Your task to perform on an android device: How much does a3 bedroom apartment rent for in Portland? Image 0: 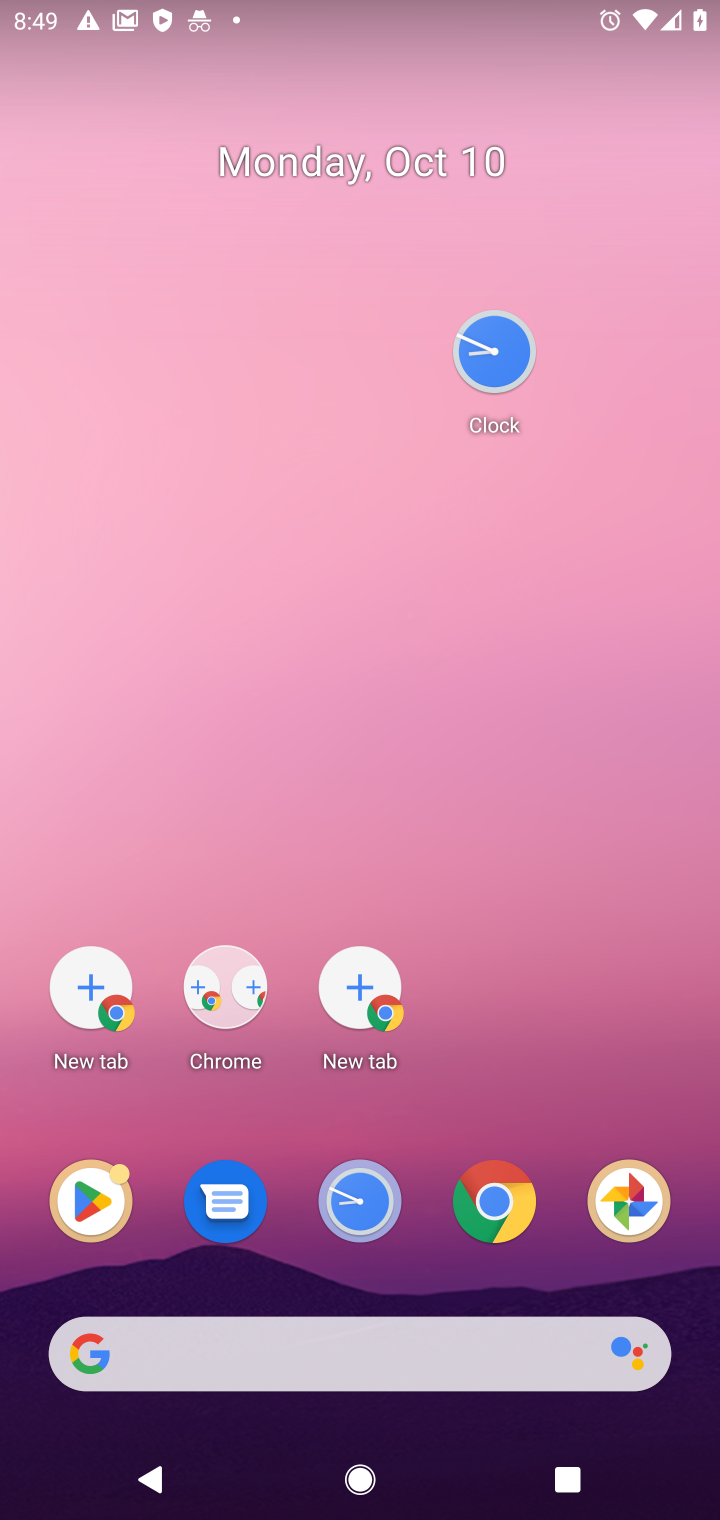
Step 0: click (494, 1210)
Your task to perform on an android device: How much does a3 bedroom apartment rent for in Portland? Image 1: 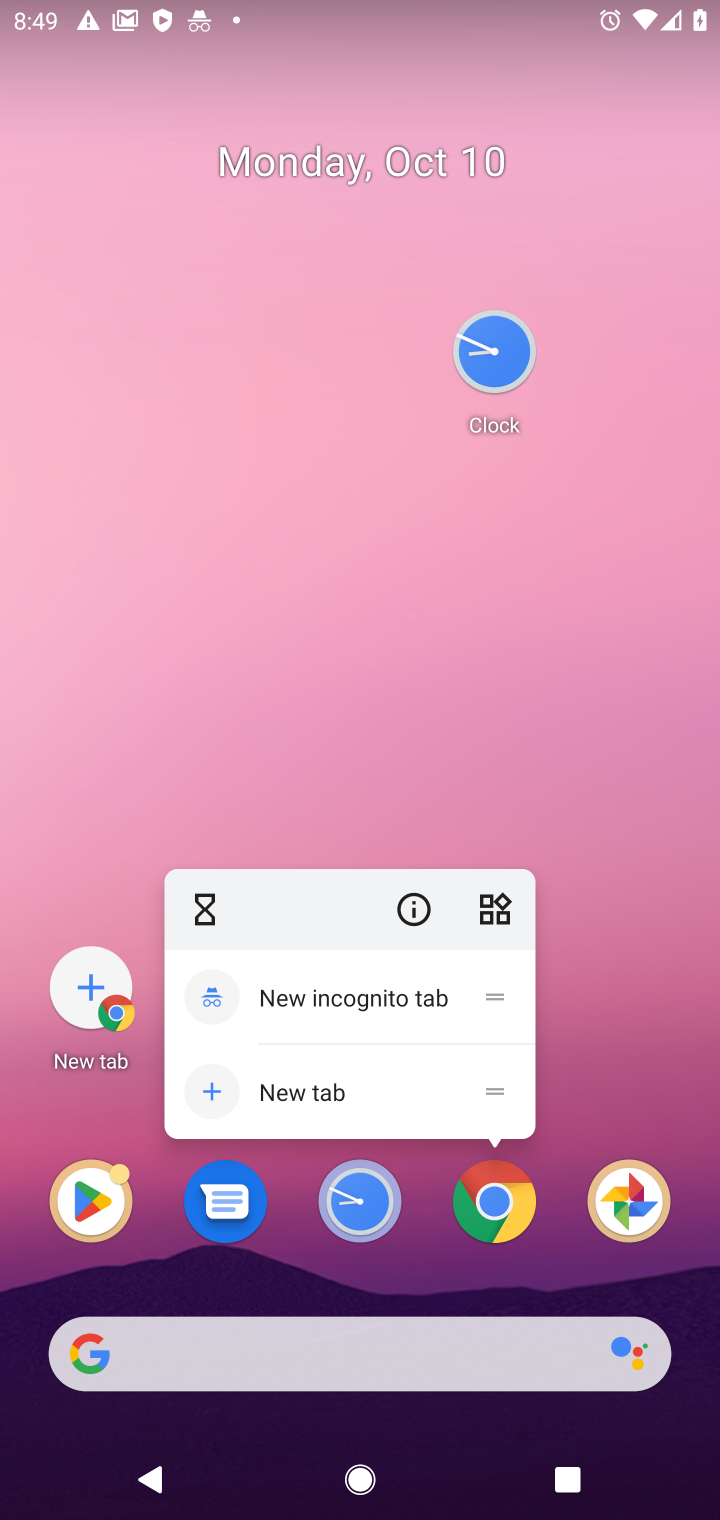
Step 1: click (483, 1227)
Your task to perform on an android device: How much does a3 bedroom apartment rent for in Portland? Image 2: 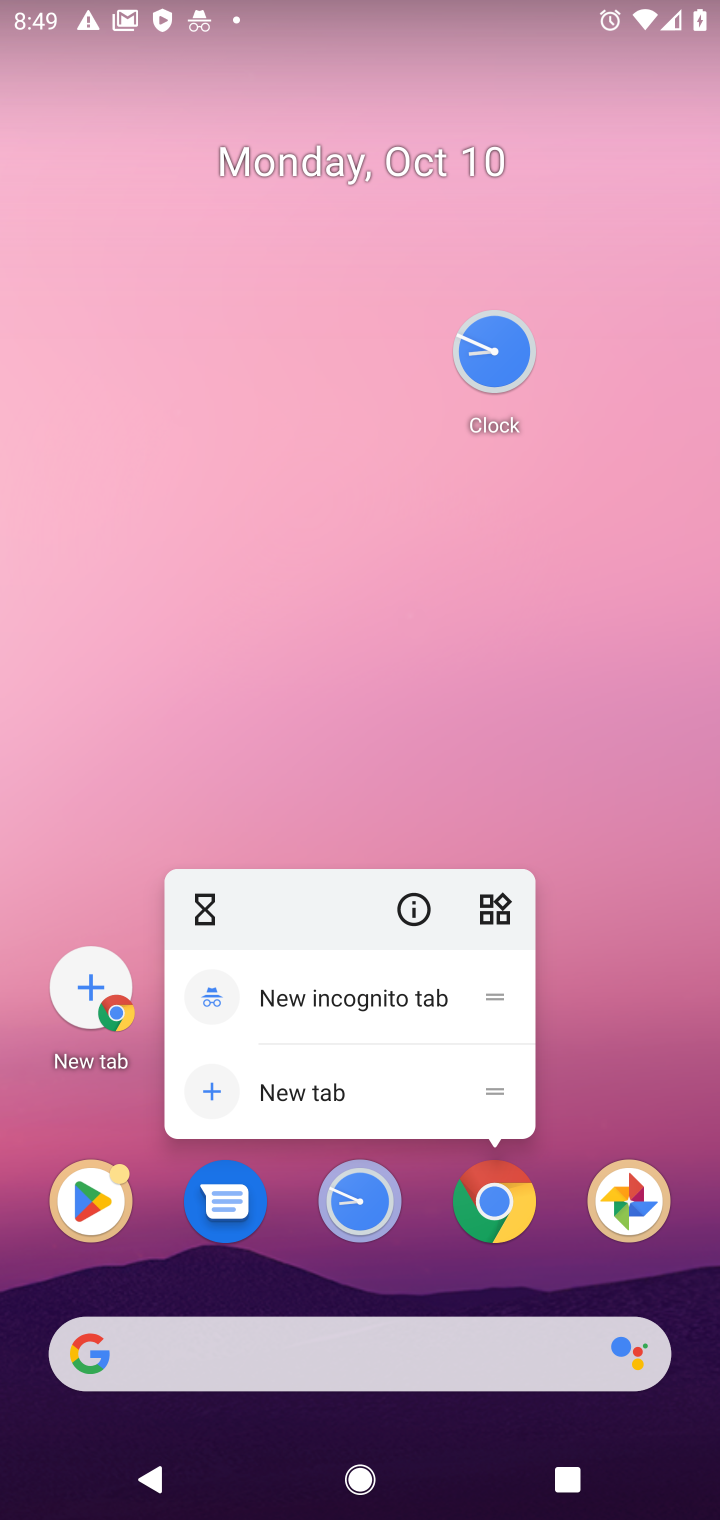
Step 2: click (585, 667)
Your task to perform on an android device: How much does a3 bedroom apartment rent for in Portland? Image 3: 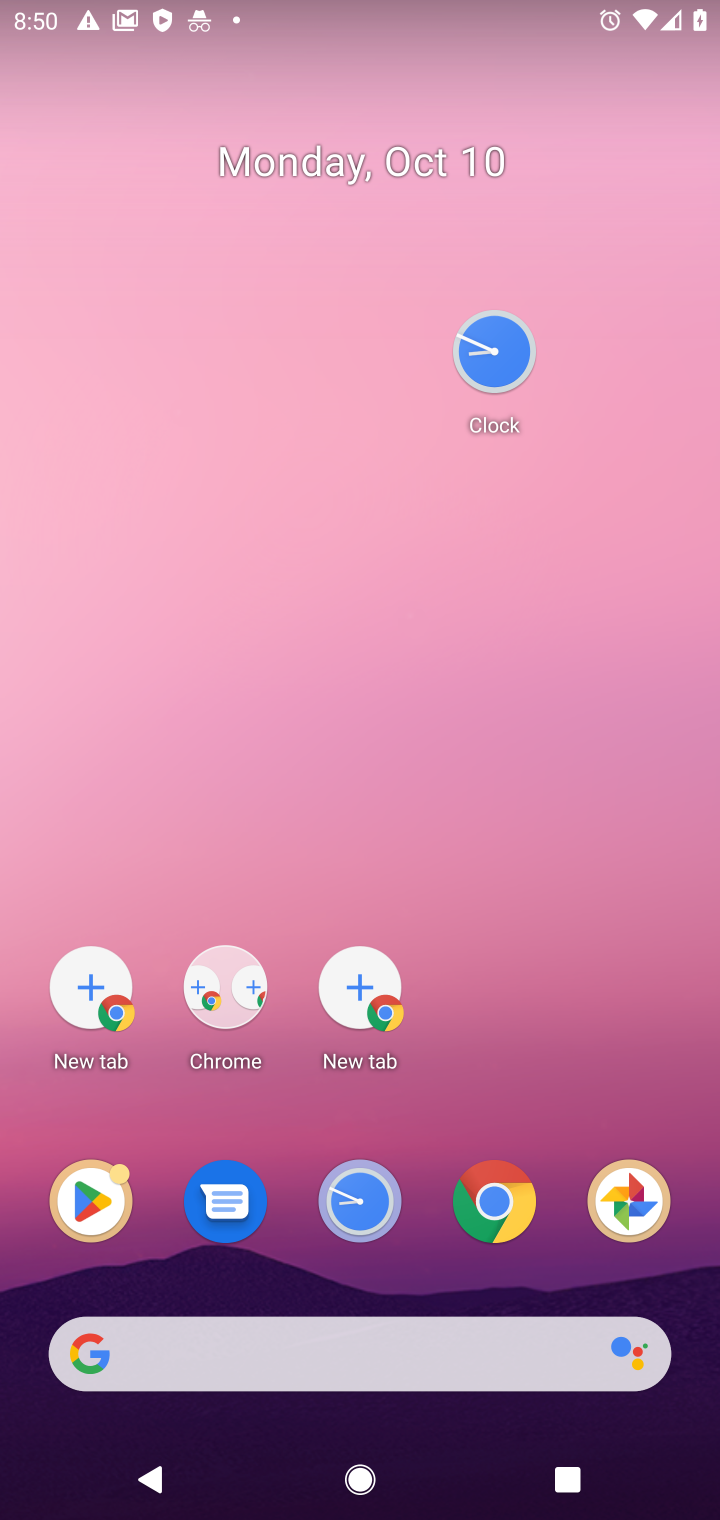
Step 3: click (498, 1202)
Your task to perform on an android device: How much does a3 bedroom apartment rent for in Portland? Image 4: 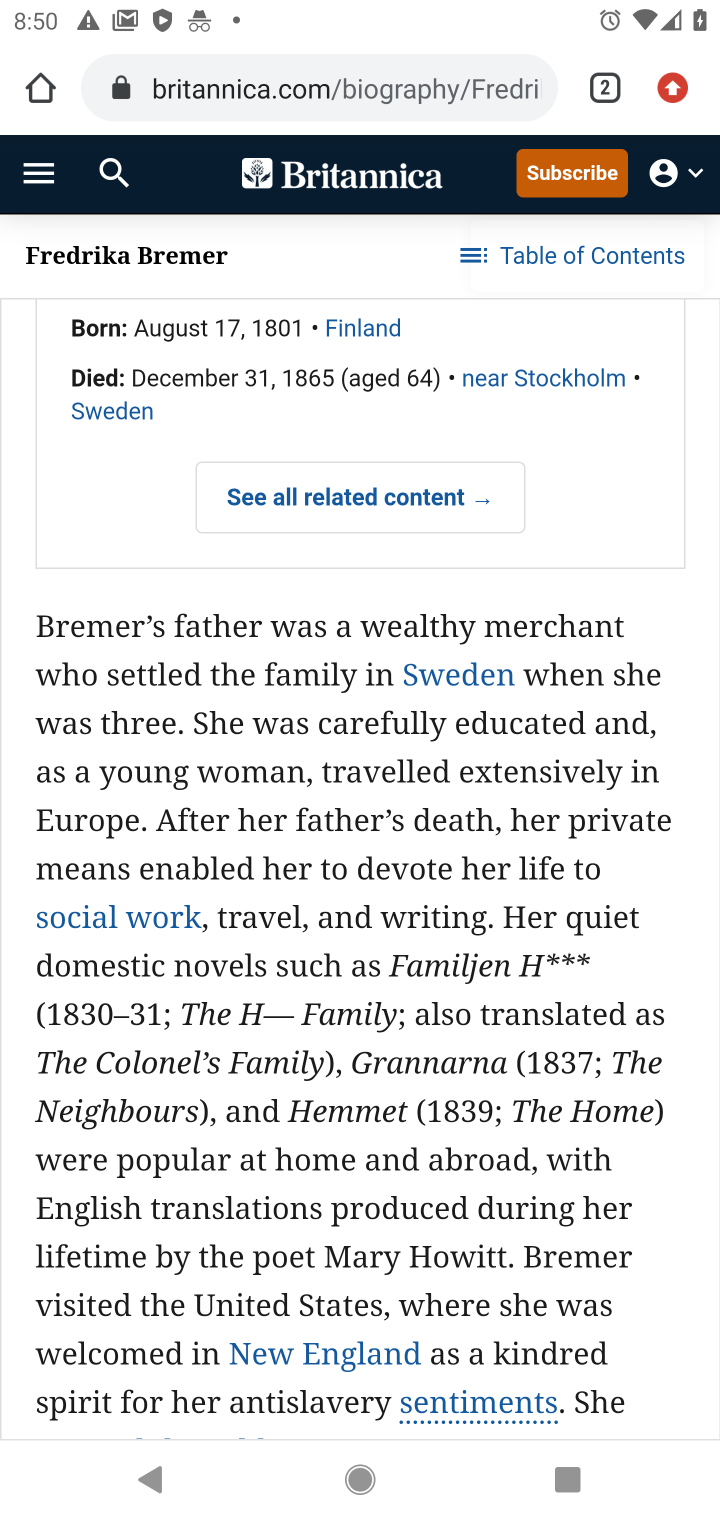
Step 4: click (402, 100)
Your task to perform on an android device: How much does a3 bedroom apartment rent for in Portland? Image 5: 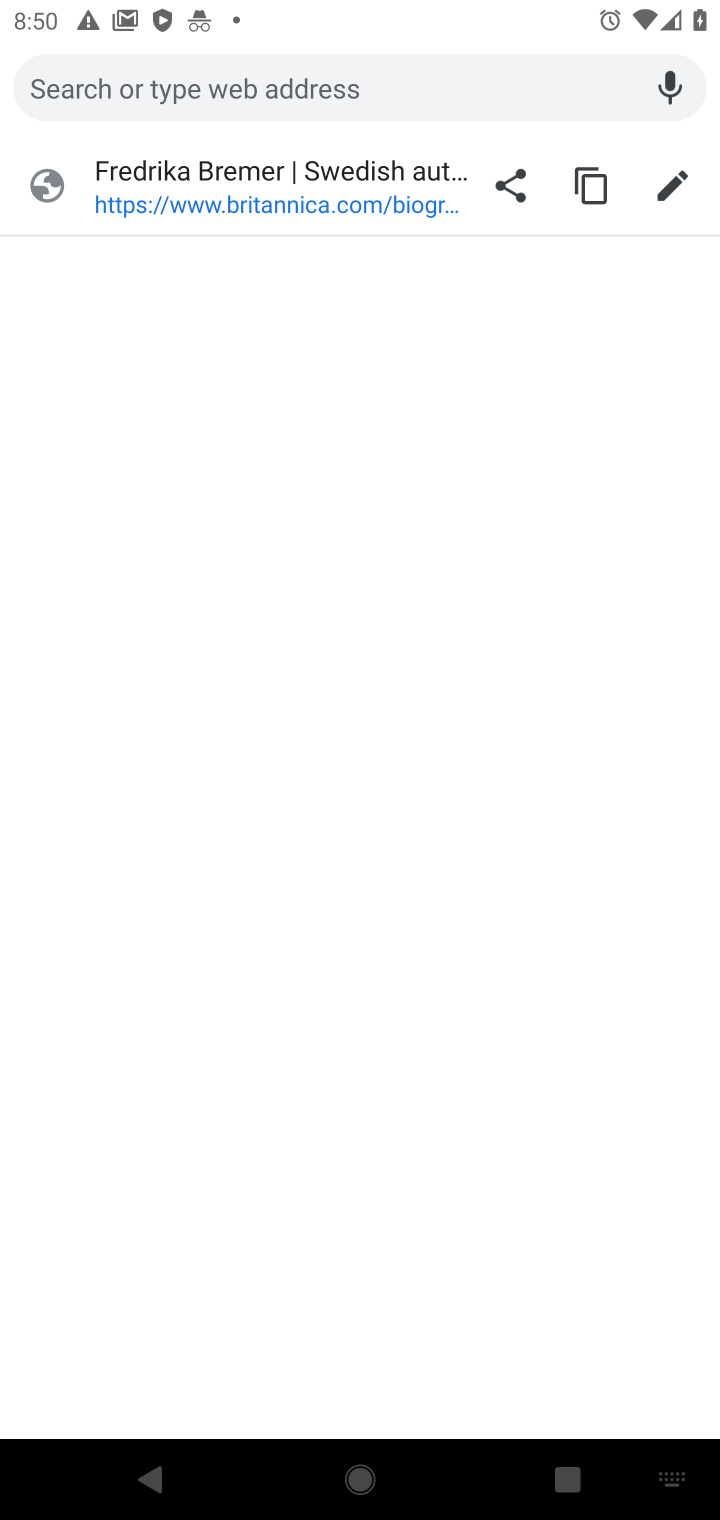
Step 5: type "How much does a3 bedroom apartment rent for in Portland?"
Your task to perform on an android device: How much does a3 bedroom apartment rent for in Portland? Image 6: 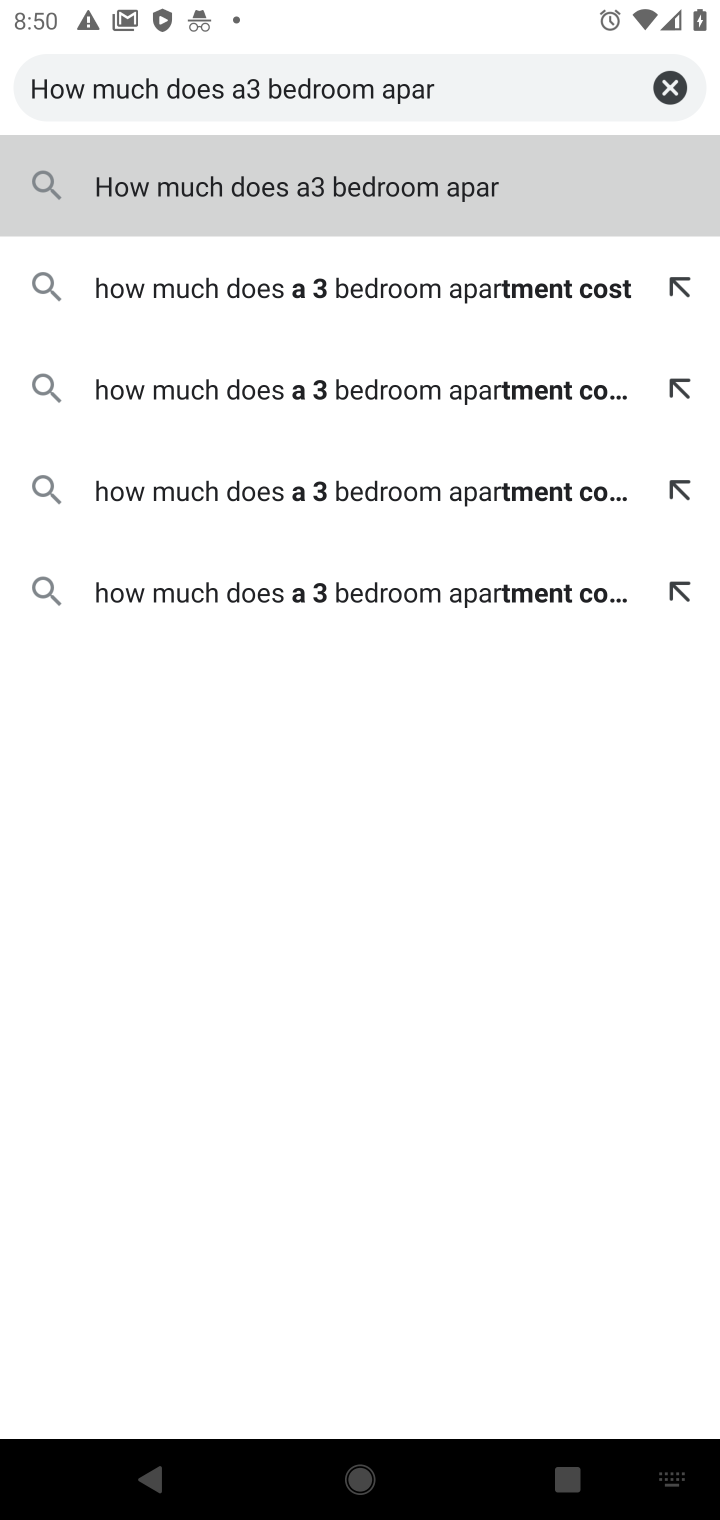
Step 6: type ""
Your task to perform on an android device: How much does a3 bedroom apartment rent for in Portland? Image 7: 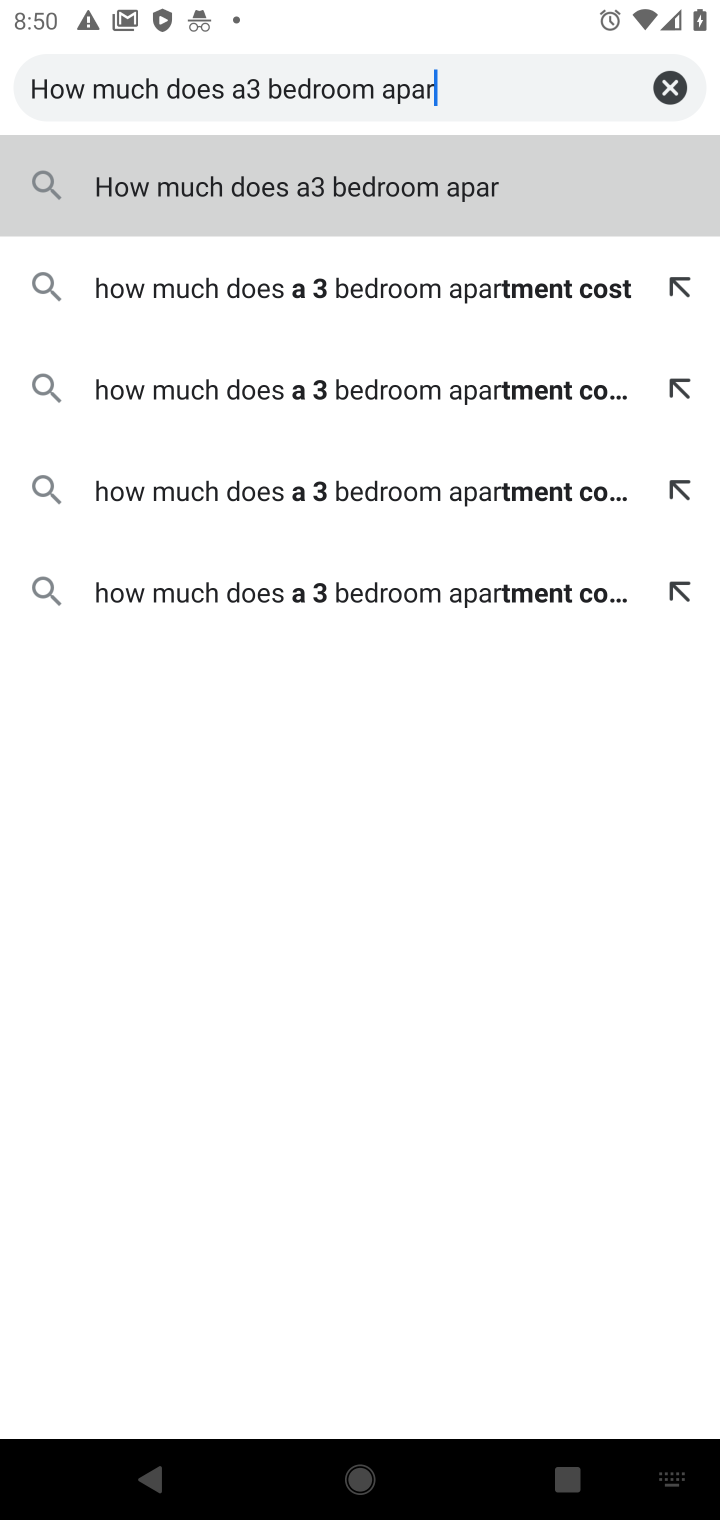
Step 7: click (675, 82)
Your task to perform on an android device: How much does a3 bedroom apartment rent for in Portland? Image 8: 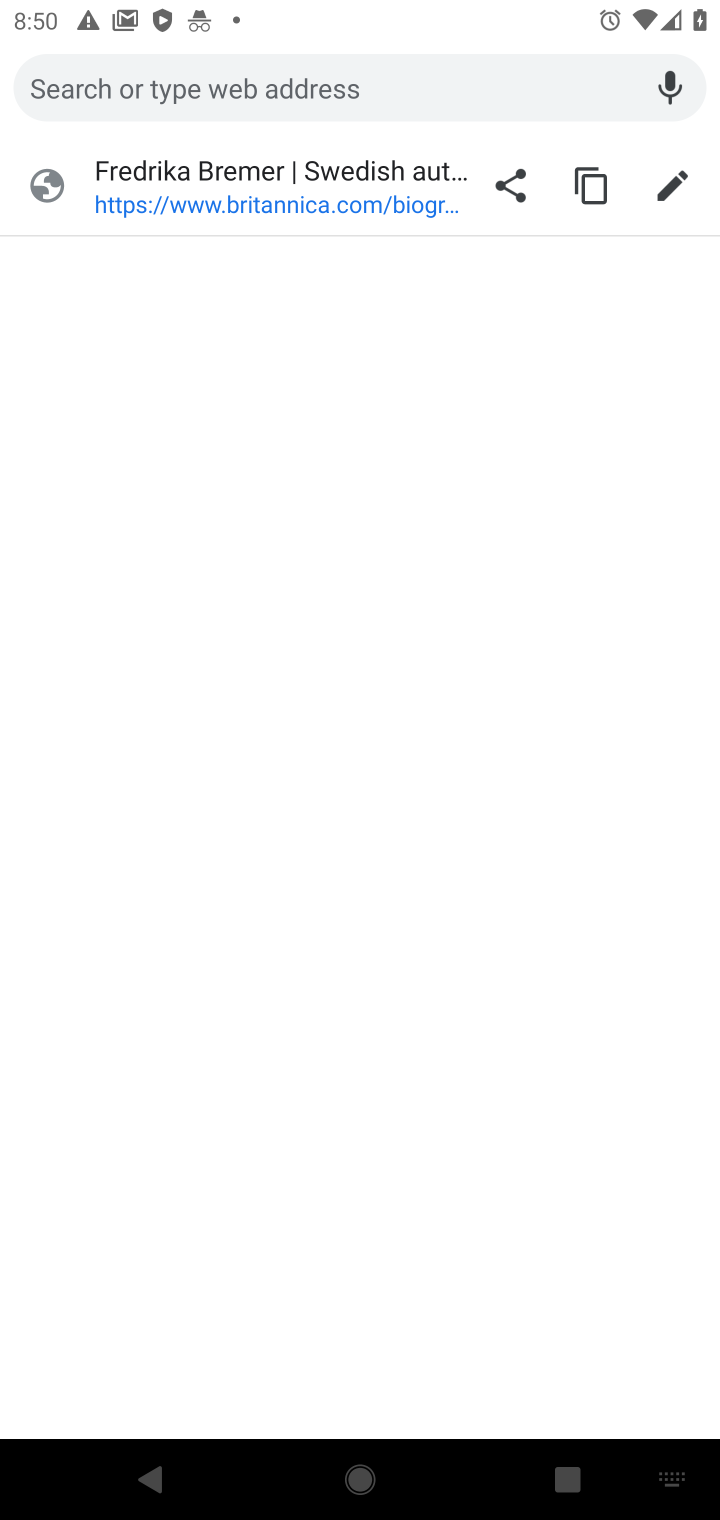
Step 8: type "How much does a3 bedroom apartment rent for in Portland?"
Your task to perform on an android device: How much does a3 bedroom apartment rent for in Portland? Image 9: 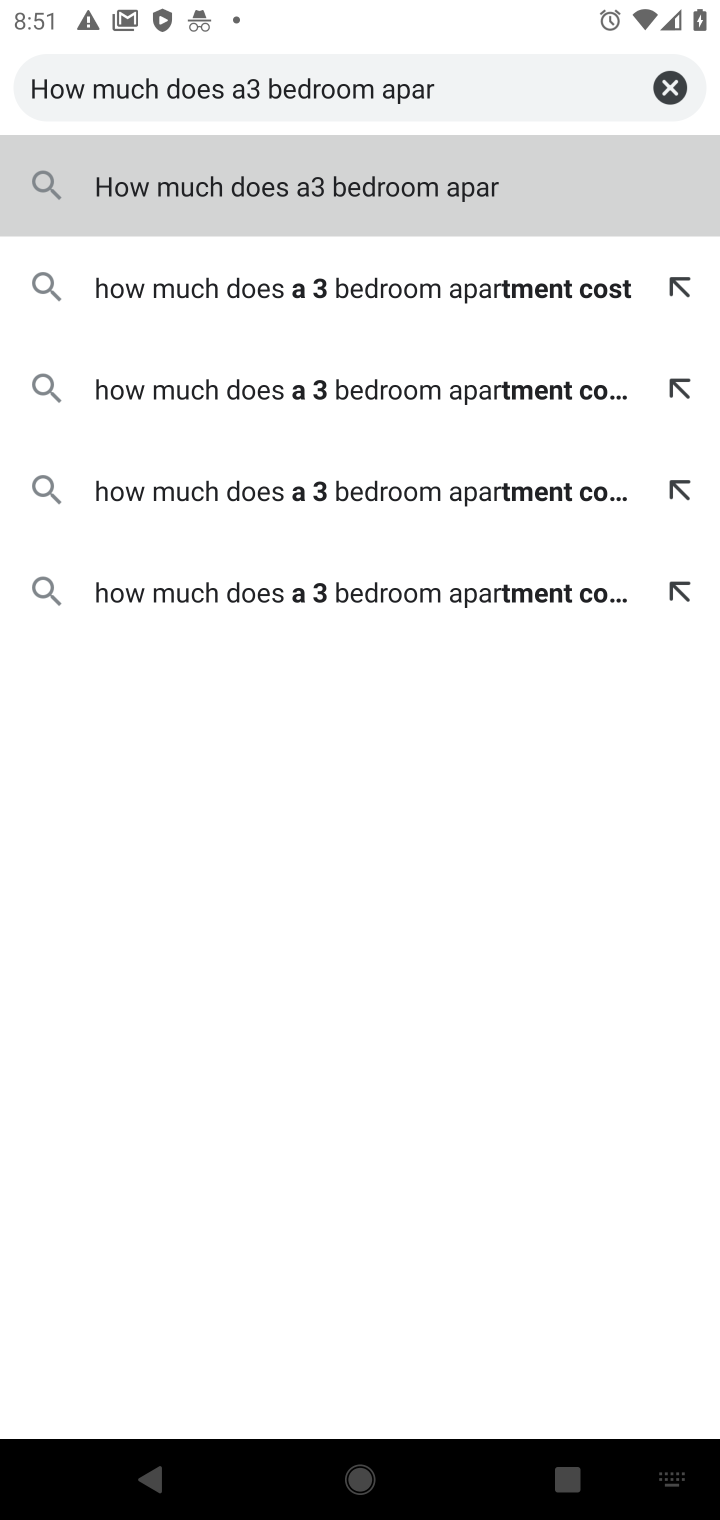
Step 9: type ""
Your task to perform on an android device: How much does a3 bedroom apartment rent for in Portland? Image 10: 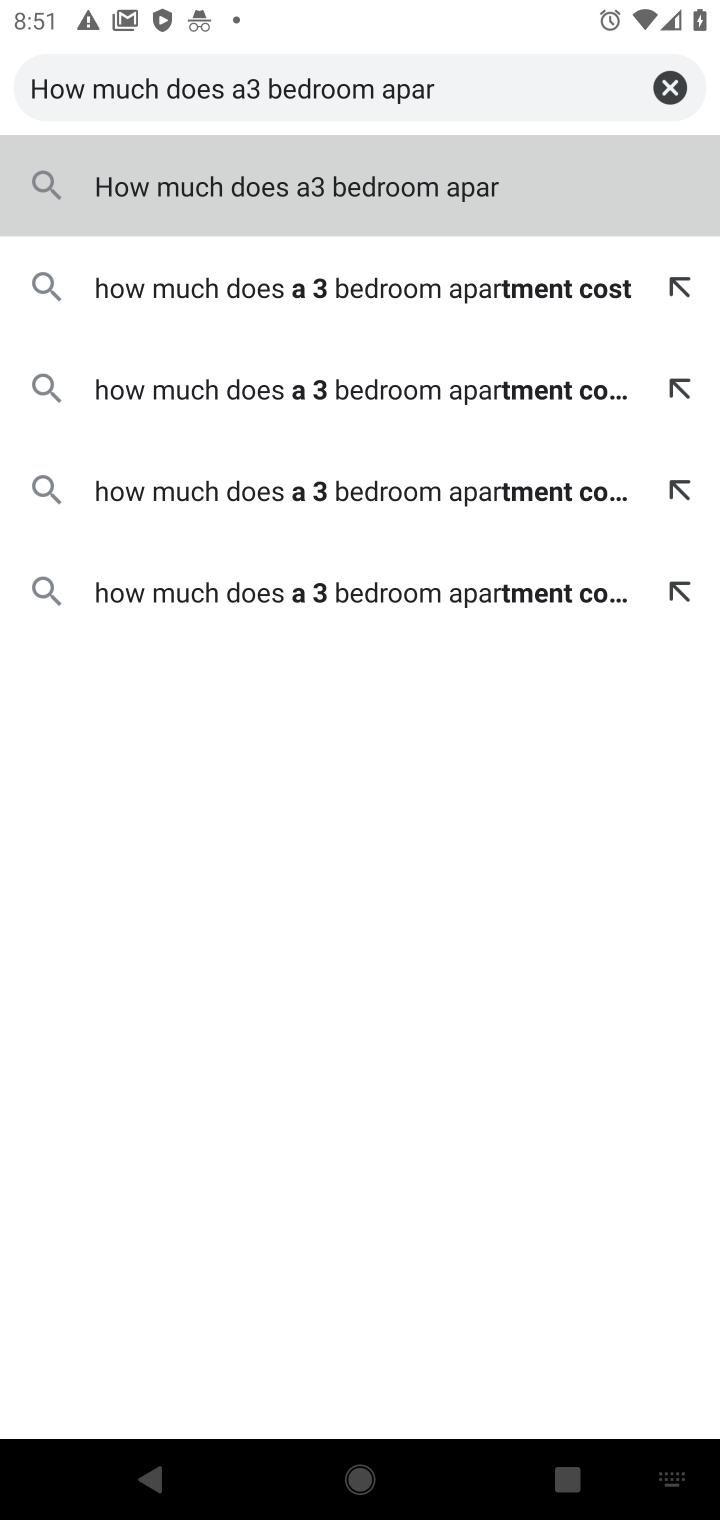
Step 10: click (454, 310)
Your task to perform on an android device: How much does a3 bedroom apartment rent for in Portland? Image 11: 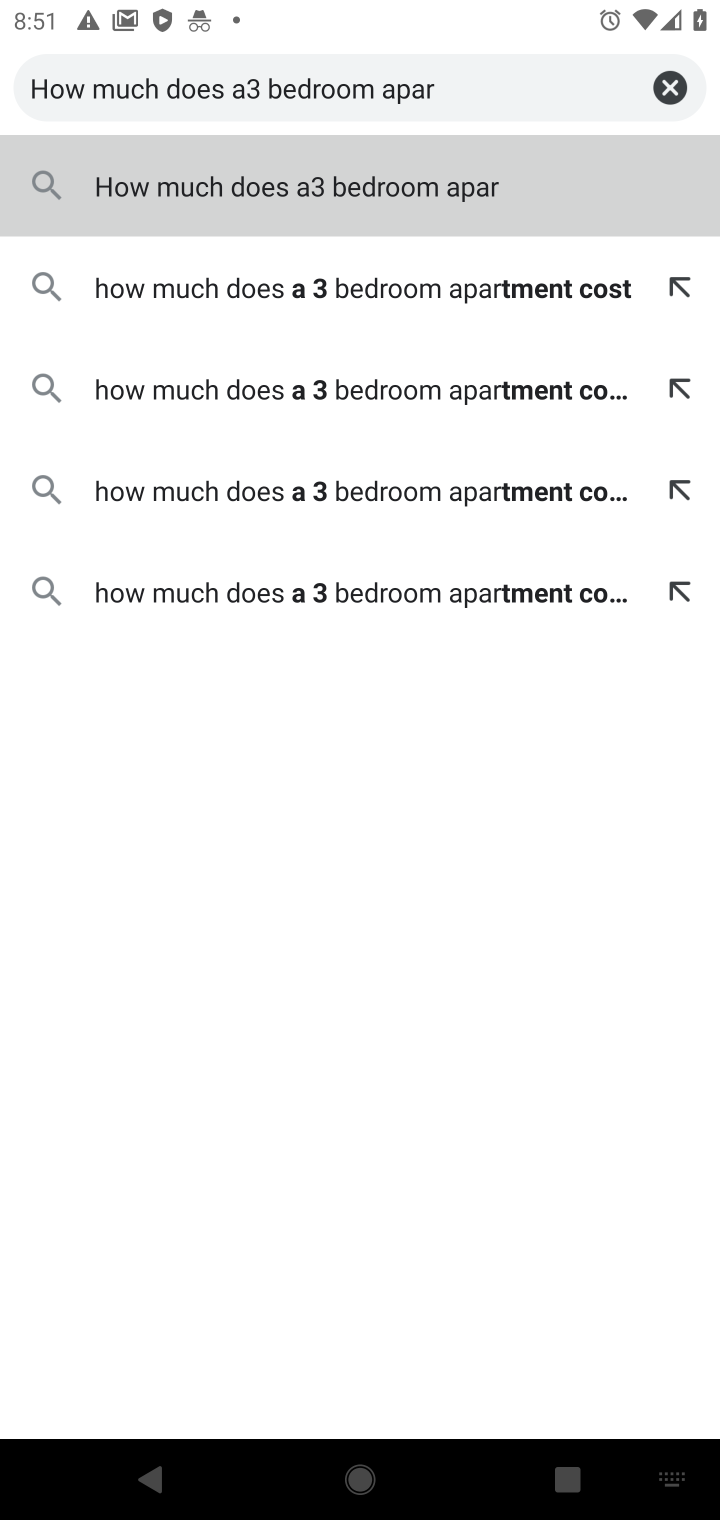
Step 11: click (458, 279)
Your task to perform on an android device: How much does a3 bedroom apartment rent for in Portland? Image 12: 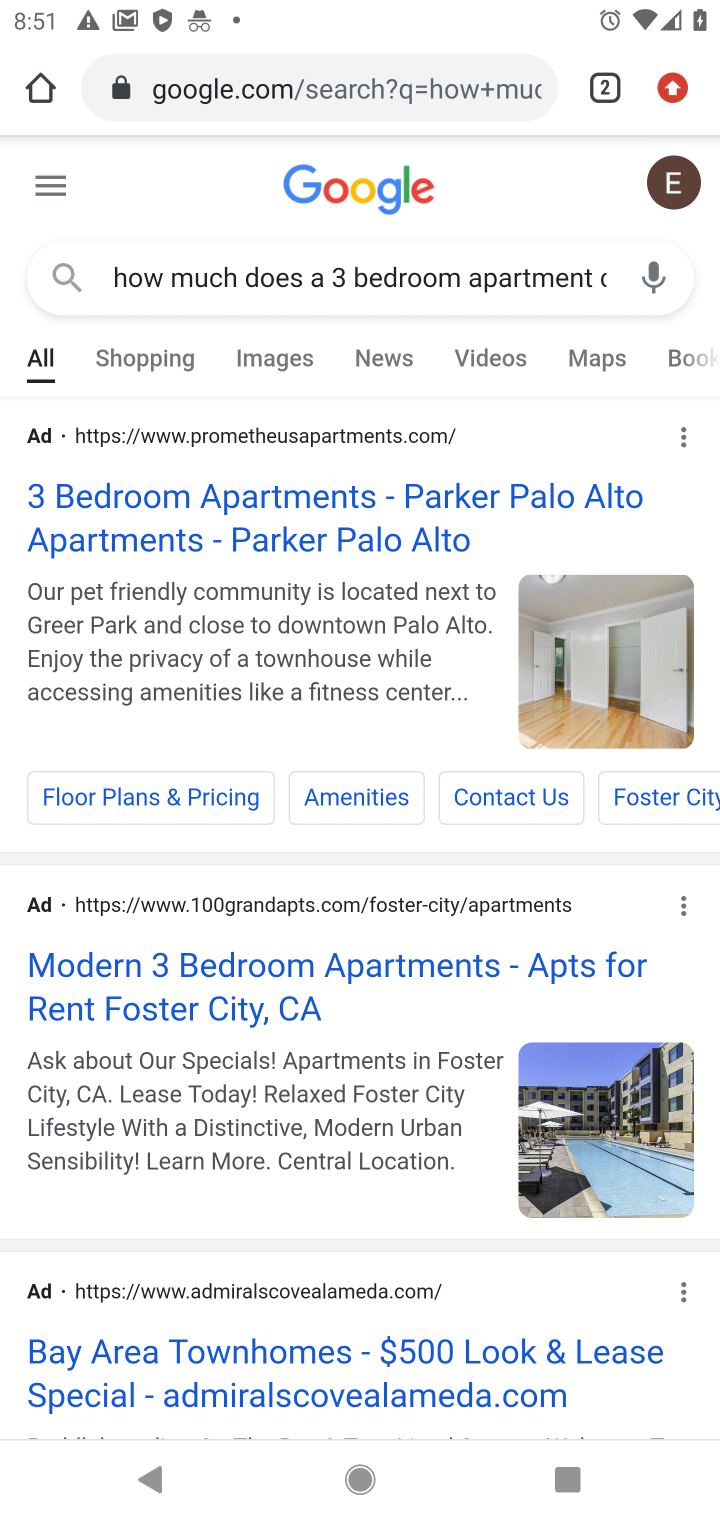
Step 12: drag from (323, 1170) to (230, 344)
Your task to perform on an android device: How much does a3 bedroom apartment rent for in Portland? Image 13: 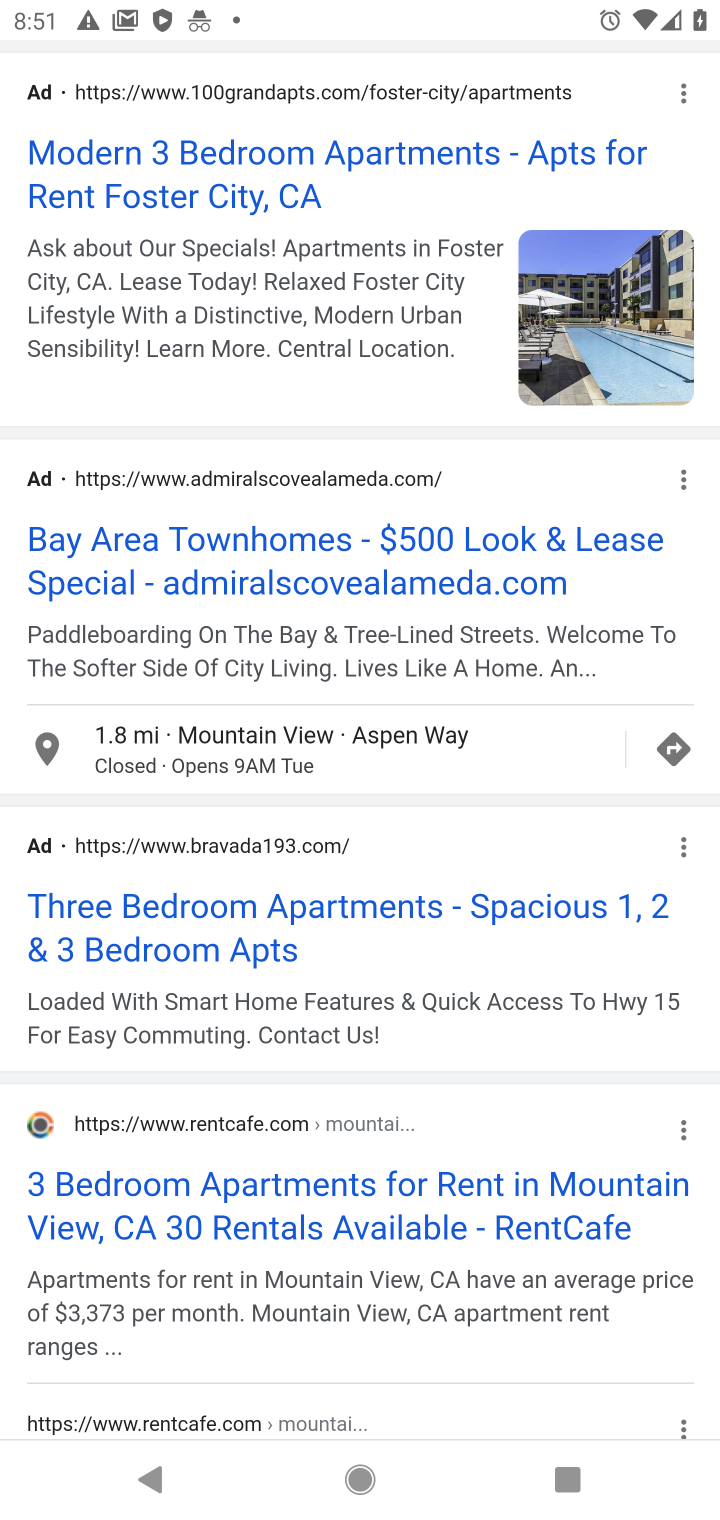
Step 13: drag from (397, 1018) to (304, 244)
Your task to perform on an android device: How much does a3 bedroom apartment rent for in Portland? Image 14: 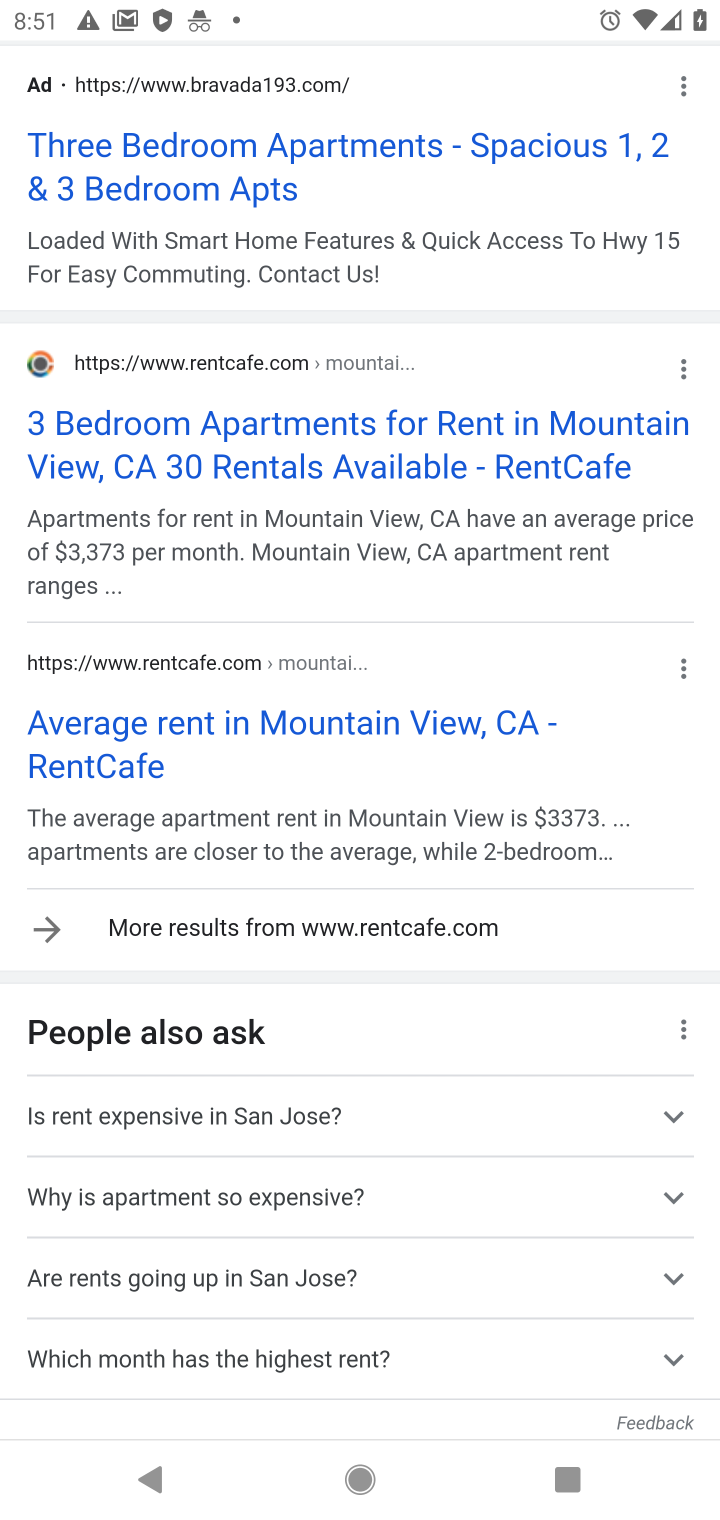
Step 14: drag from (368, 725) to (366, 1200)
Your task to perform on an android device: How much does a3 bedroom apartment rent for in Portland? Image 15: 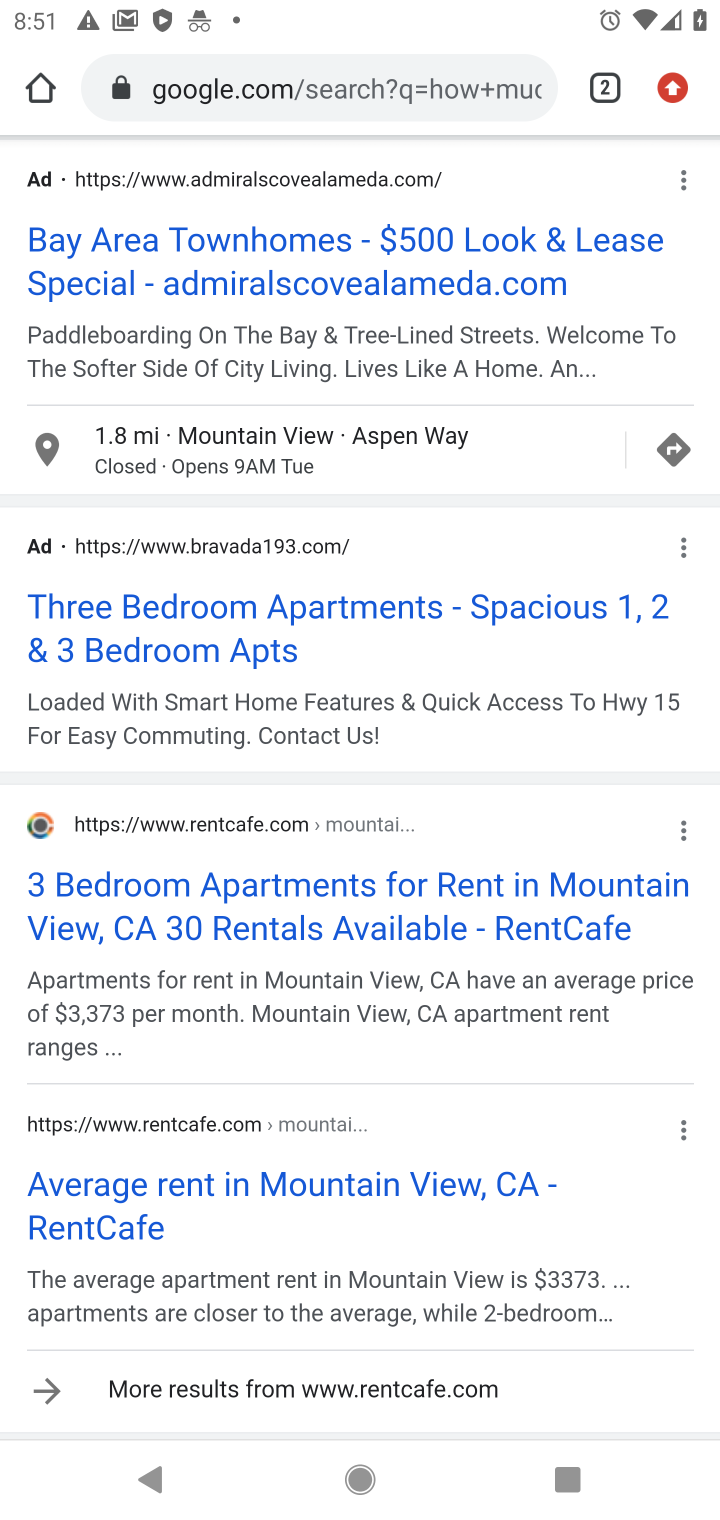
Step 15: click (202, 99)
Your task to perform on an android device: How much does a3 bedroom apartment rent for in Portland? Image 16: 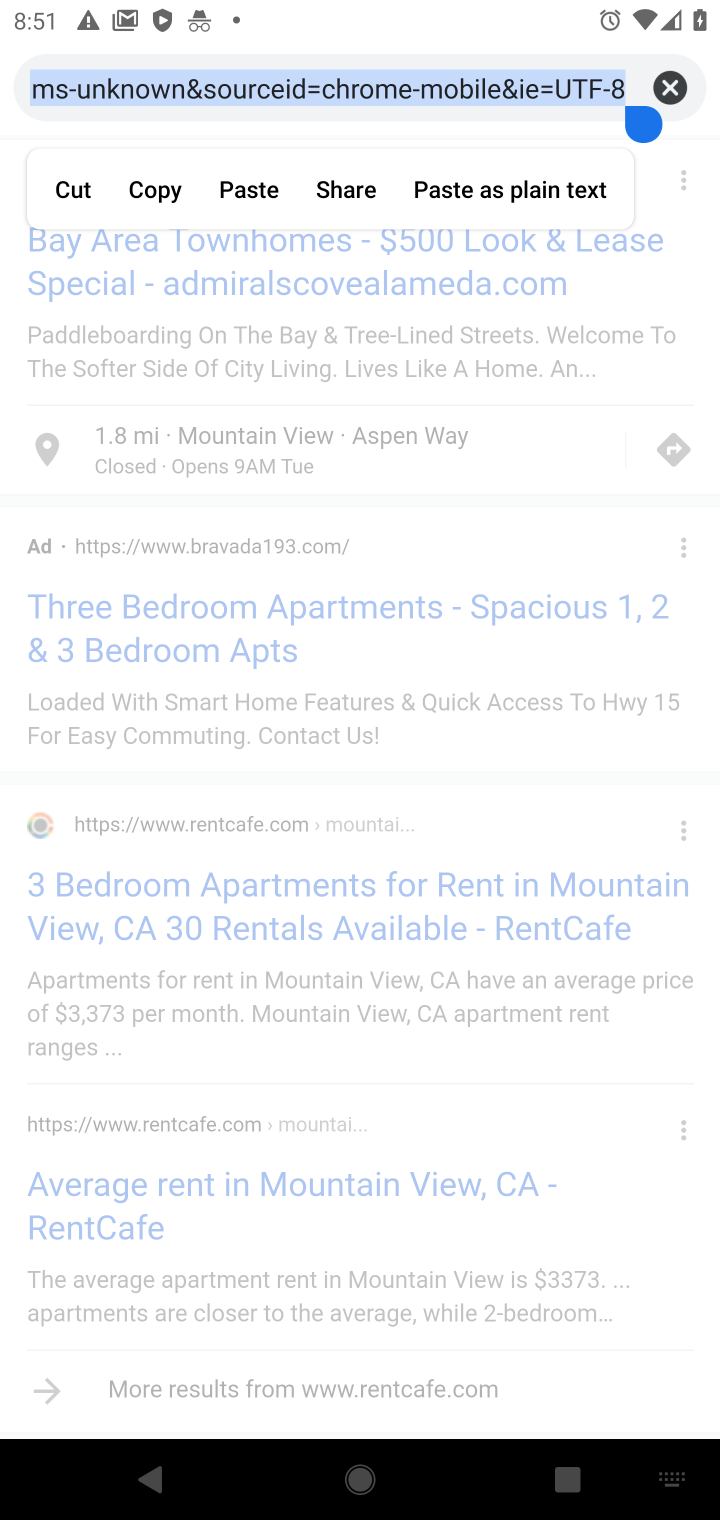
Step 16: type "How much does a3 bedroom apartment rent for in Portland?"
Your task to perform on an android device: How much does a3 bedroom apartment rent for in Portland? Image 17: 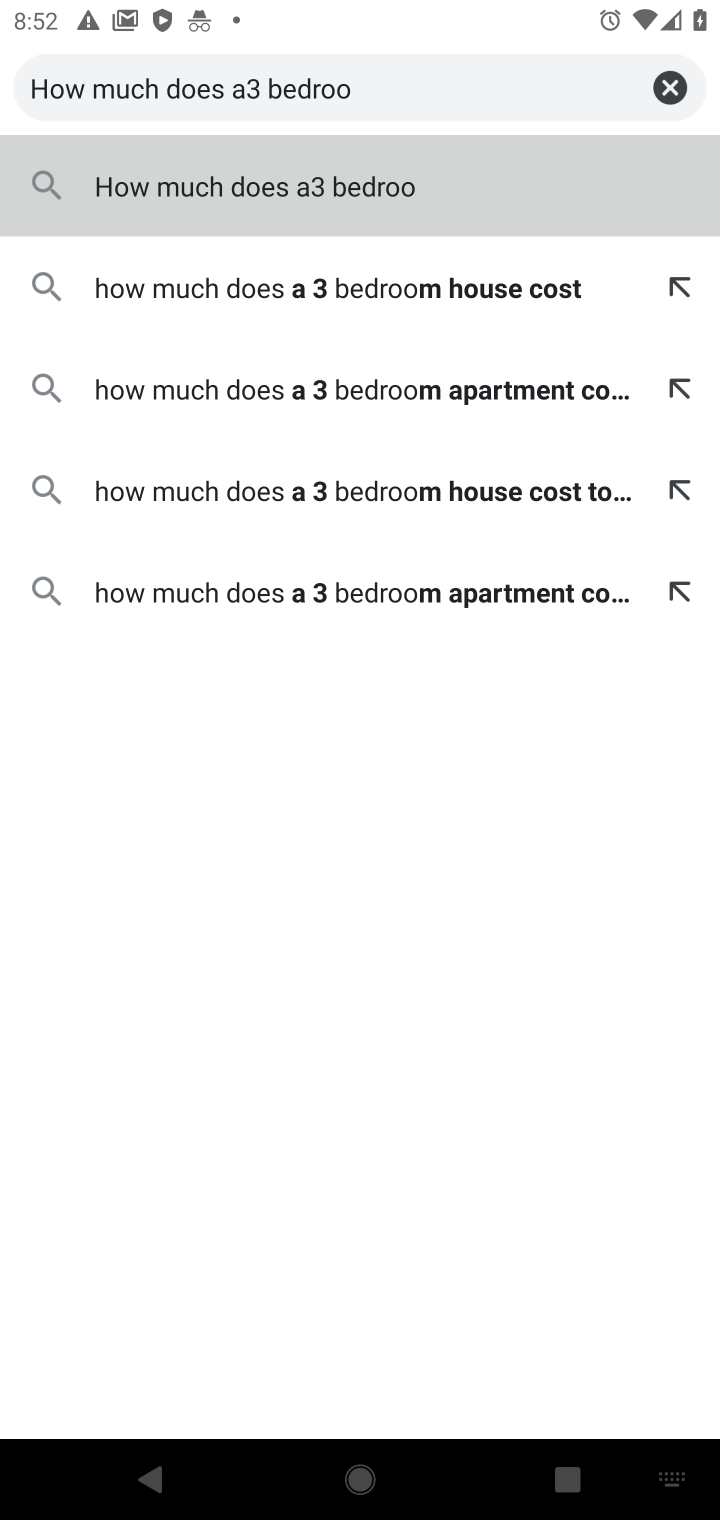
Step 17: type ""
Your task to perform on an android device: How much does a3 bedroom apartment rent for in Portland? Image 18: 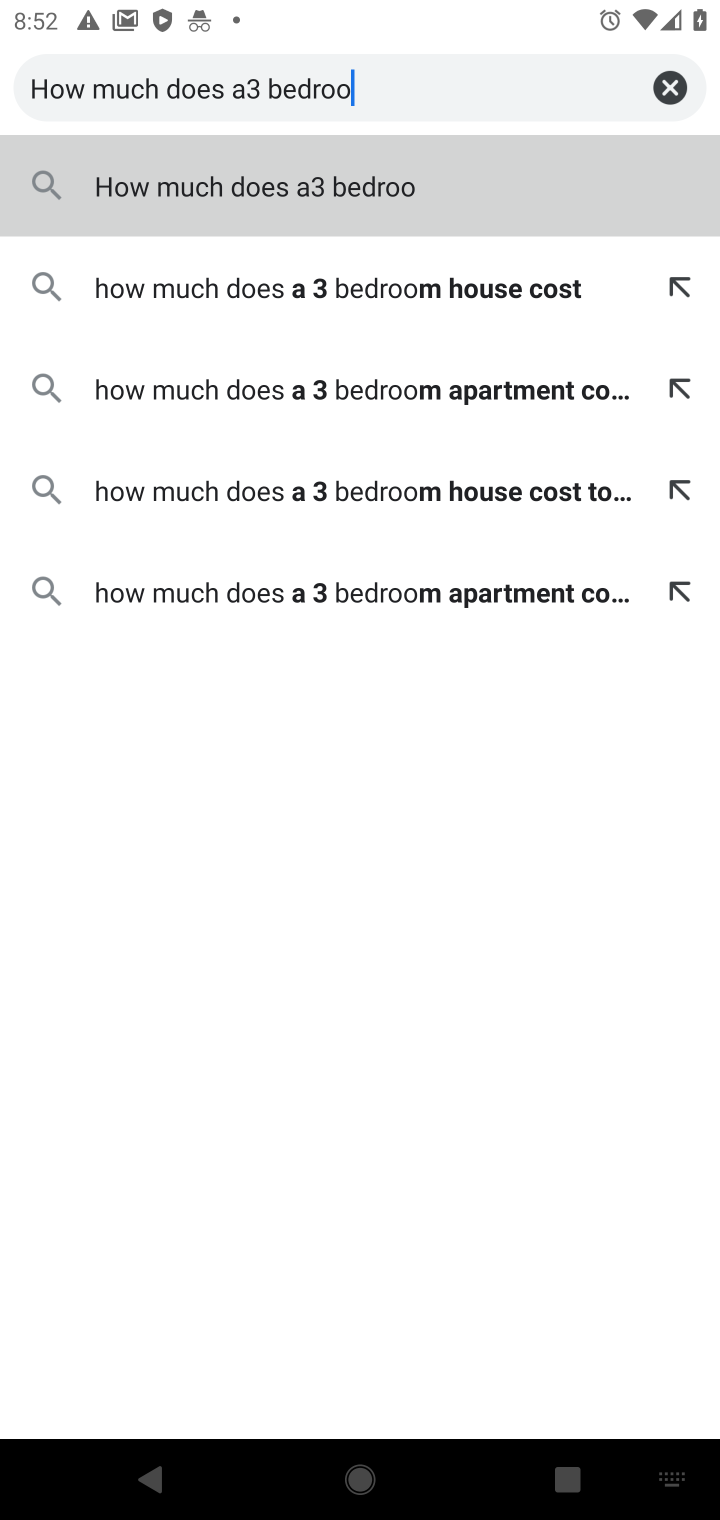
Step 18: task complete